Your task to perform on an android device: uninstall "Paramount+ | Peak Streaming" Image 0: 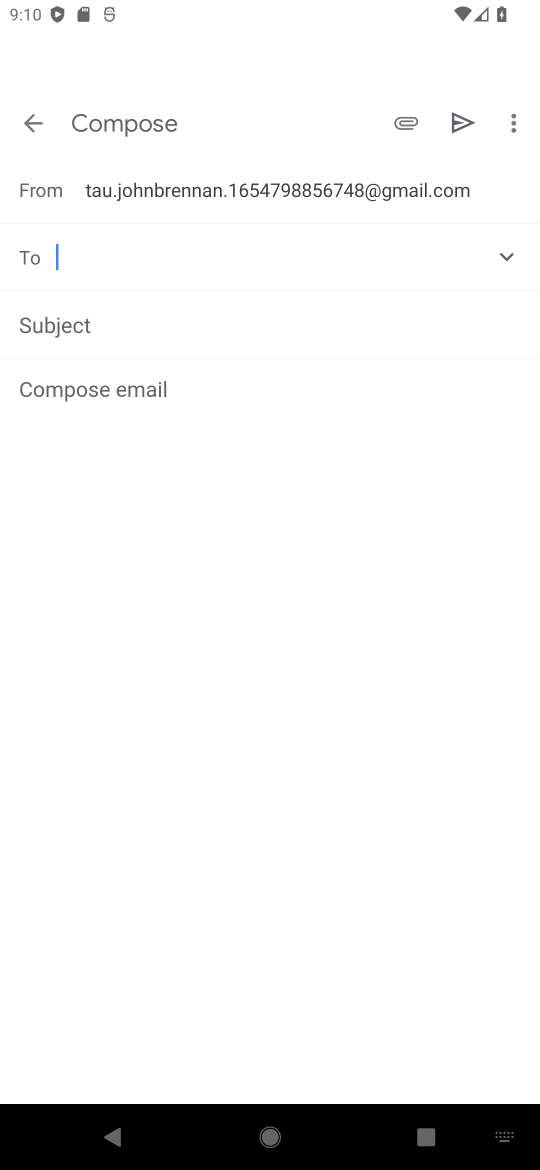
Step 0: press back button
Your task to perform on an android device: uninstall "Paramount+ | Peak Streaming" Image 1: 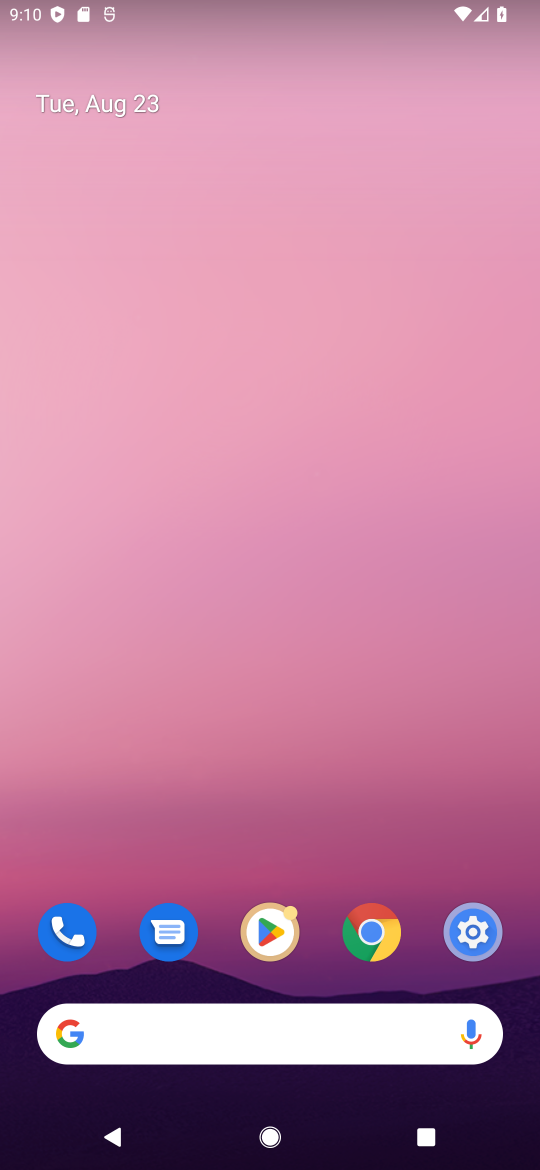
Step 1: click (287, 946)
Your task to perform on an android device: uninstall "Paramount+ | Peak Streaming" Image 2: 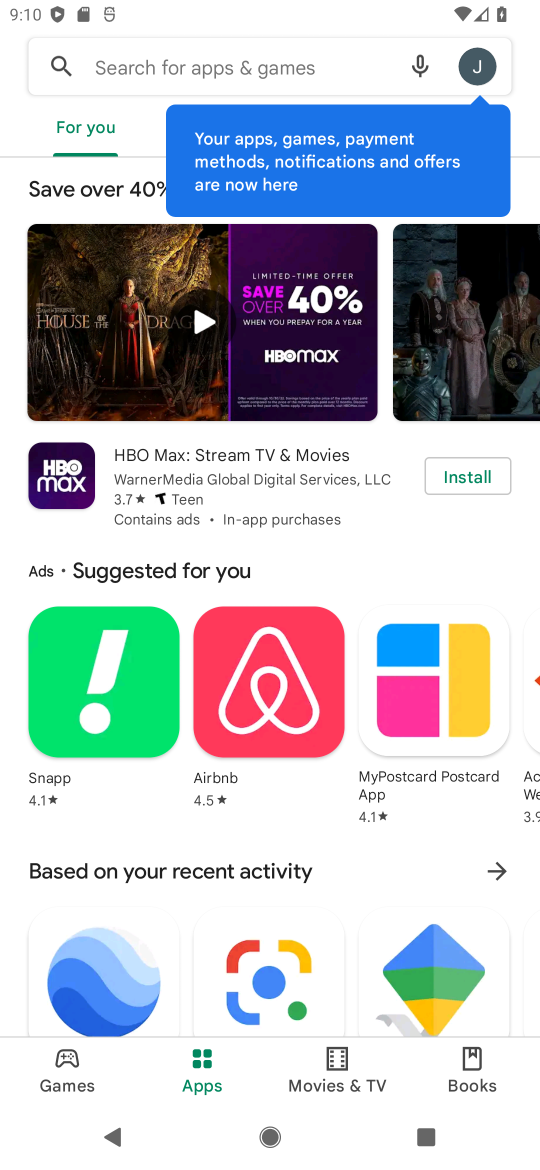
Step 2: click (174, 65)
Your task to perform on an android device: uninstall "Paramount+ | Peak Streaming" Image 3: 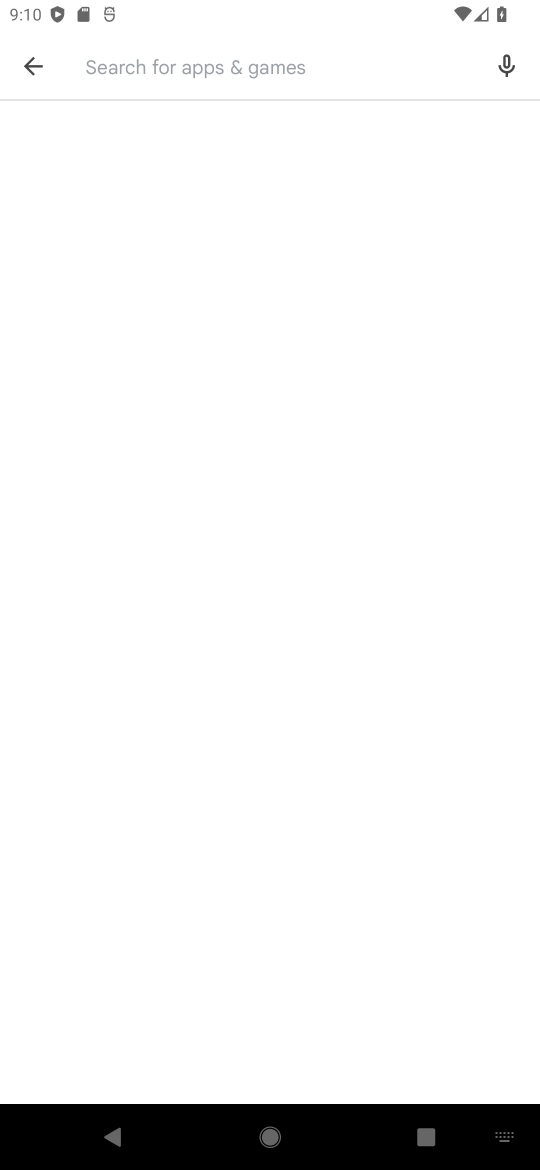
Step 3: click (117, 56)
Your task to perform on an android device: uninstall "Paramount+ | Peak Streaming" Image 4: 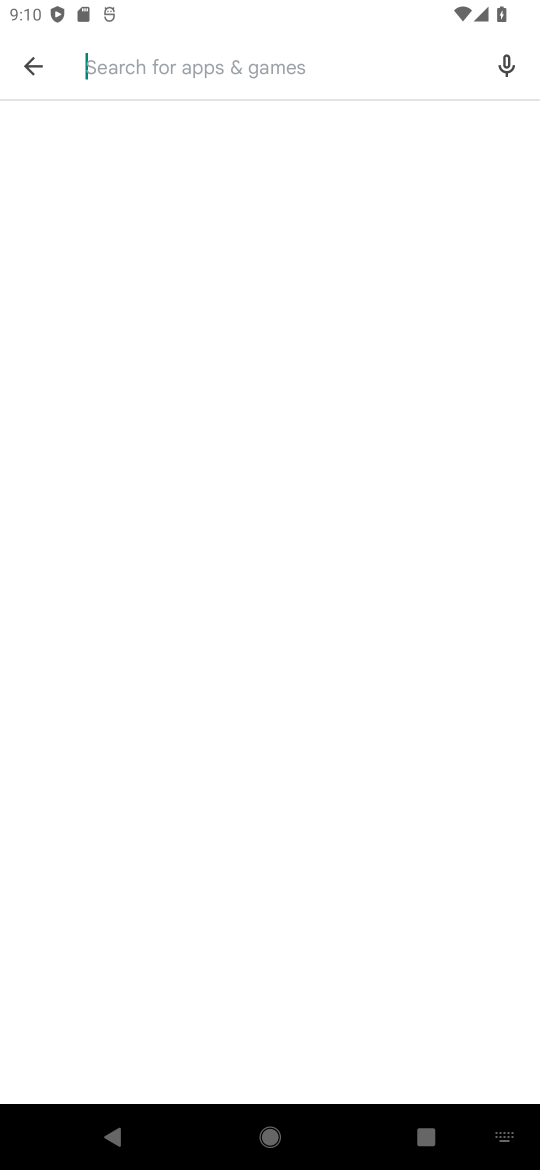
Step 4: type "Paramount+"
Your task to perform on an android device: uninstall "Paramount+ | Peak Streaming" Image 5: 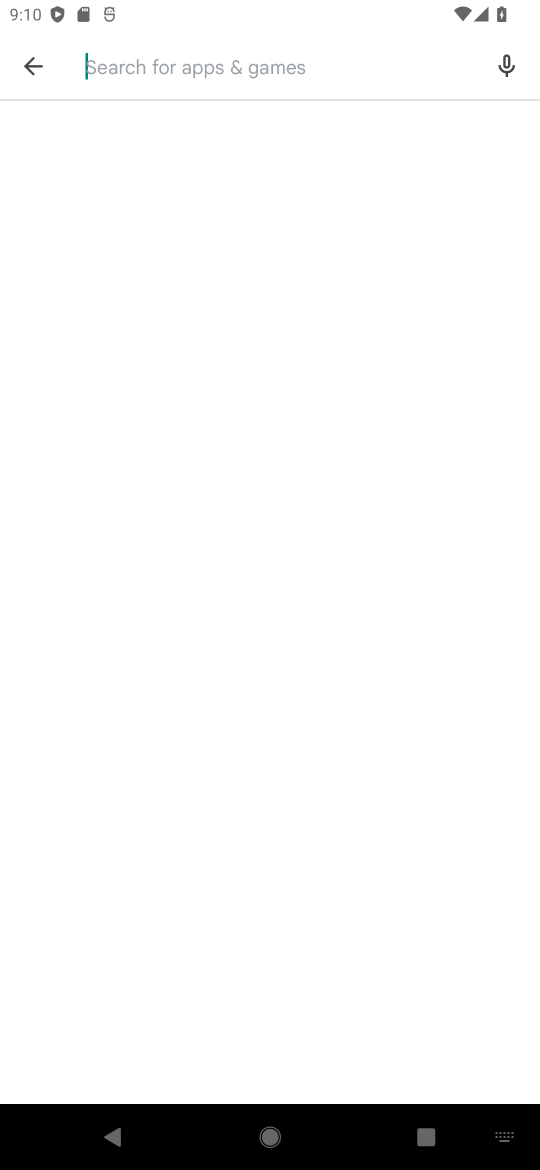
Step 5: click (417, 592)
Your task to perform on an android device: uninstall "Paramount+ | Peak Streaming" Image 6: 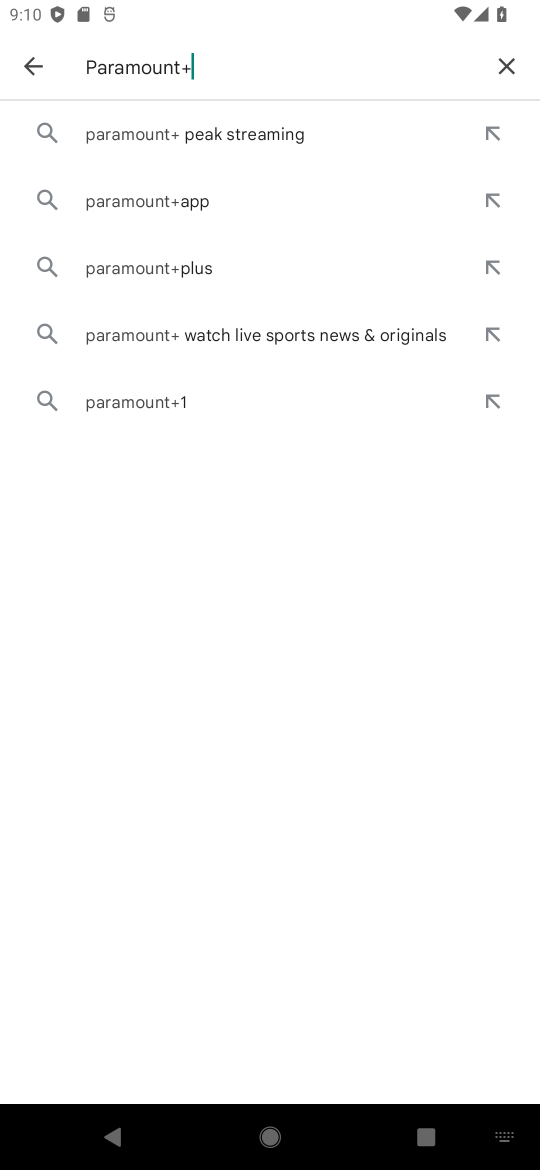
Step 6: click (213, 157)
Your task to perform on an android device: uninstall "Paramount+ | Peak Streaming" Image 7: 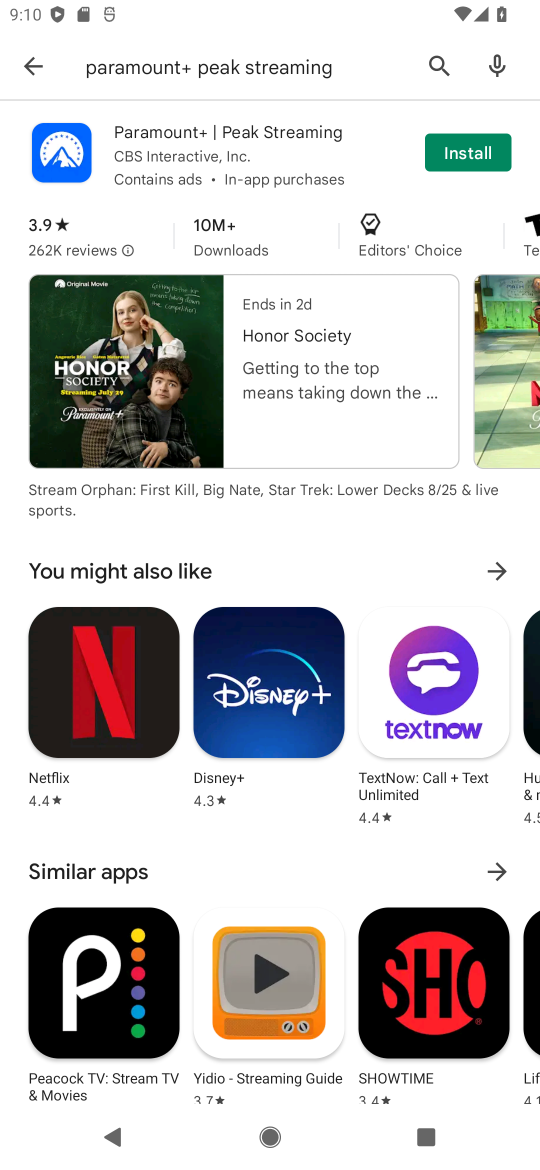
Step 7: task complete